Your task to perform on an android device: Open settings on Google Maps Image 0: 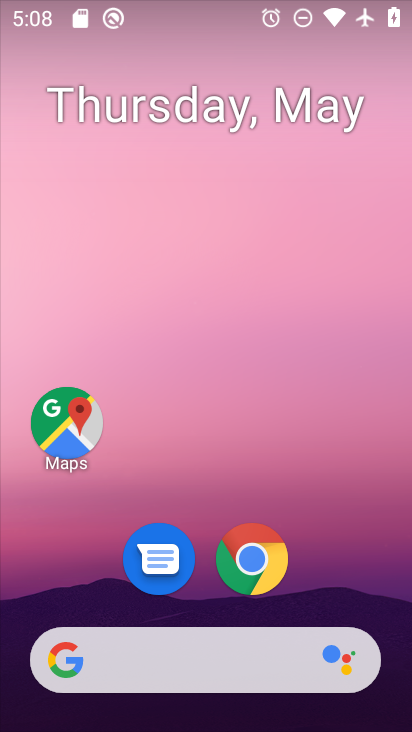
Step 0: click (45, 414)
Your task to perform on an android device: Open settings on Google Maps Image 1: 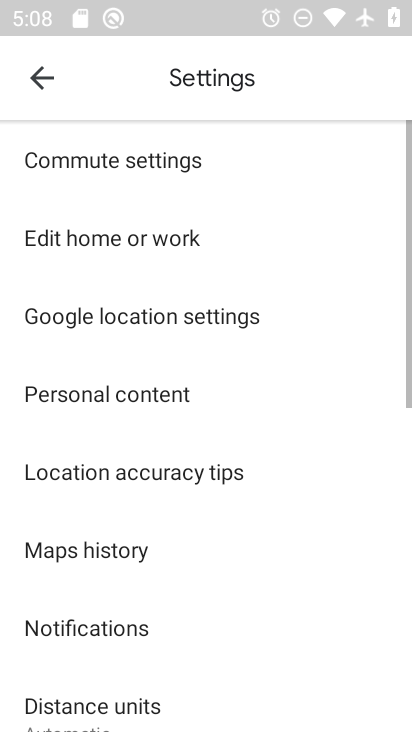
Step 1: task complete